Your task to perform on an android device: Open calendar and show me the second week of next month Image 0: 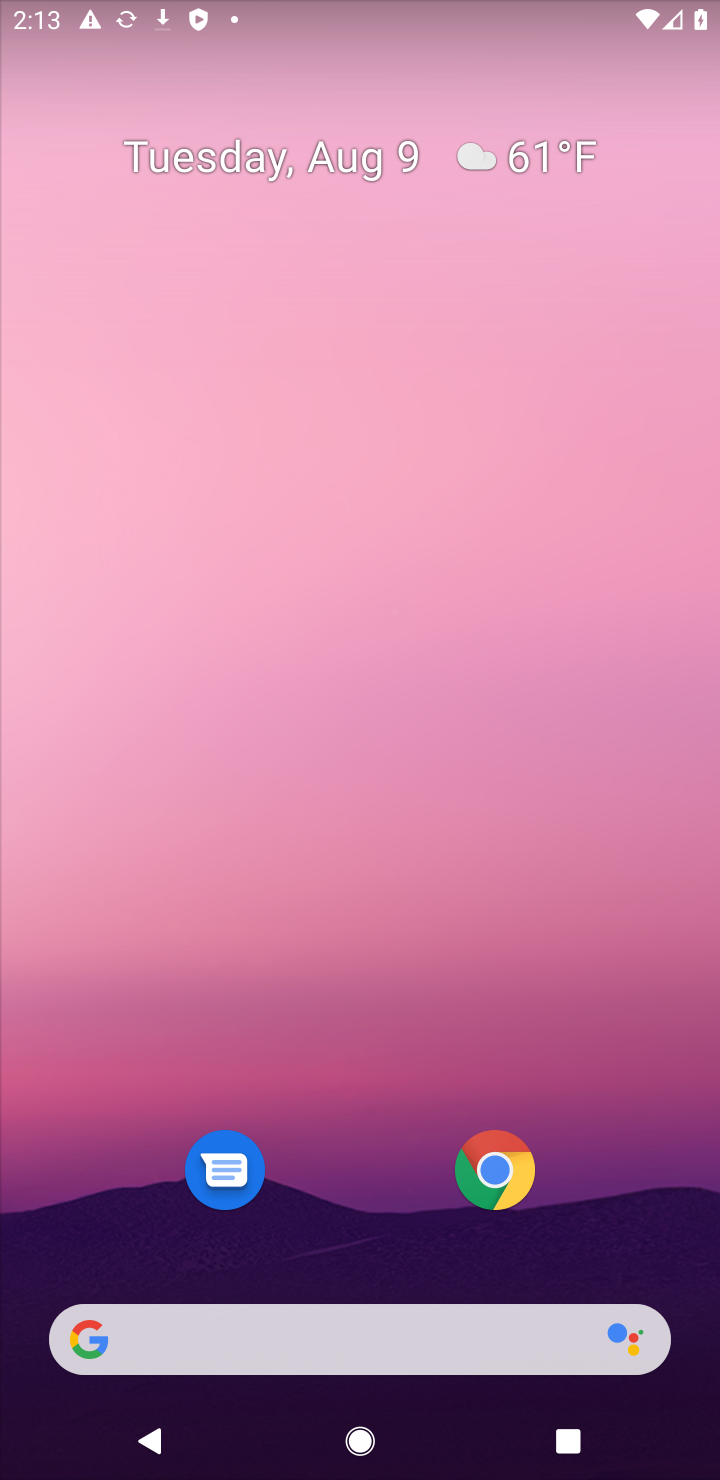
Step 0: drag from (342, 1171) to (558, 1)
Your task to perform on an android device: Open calendar and show me the second week of next month Image 1: 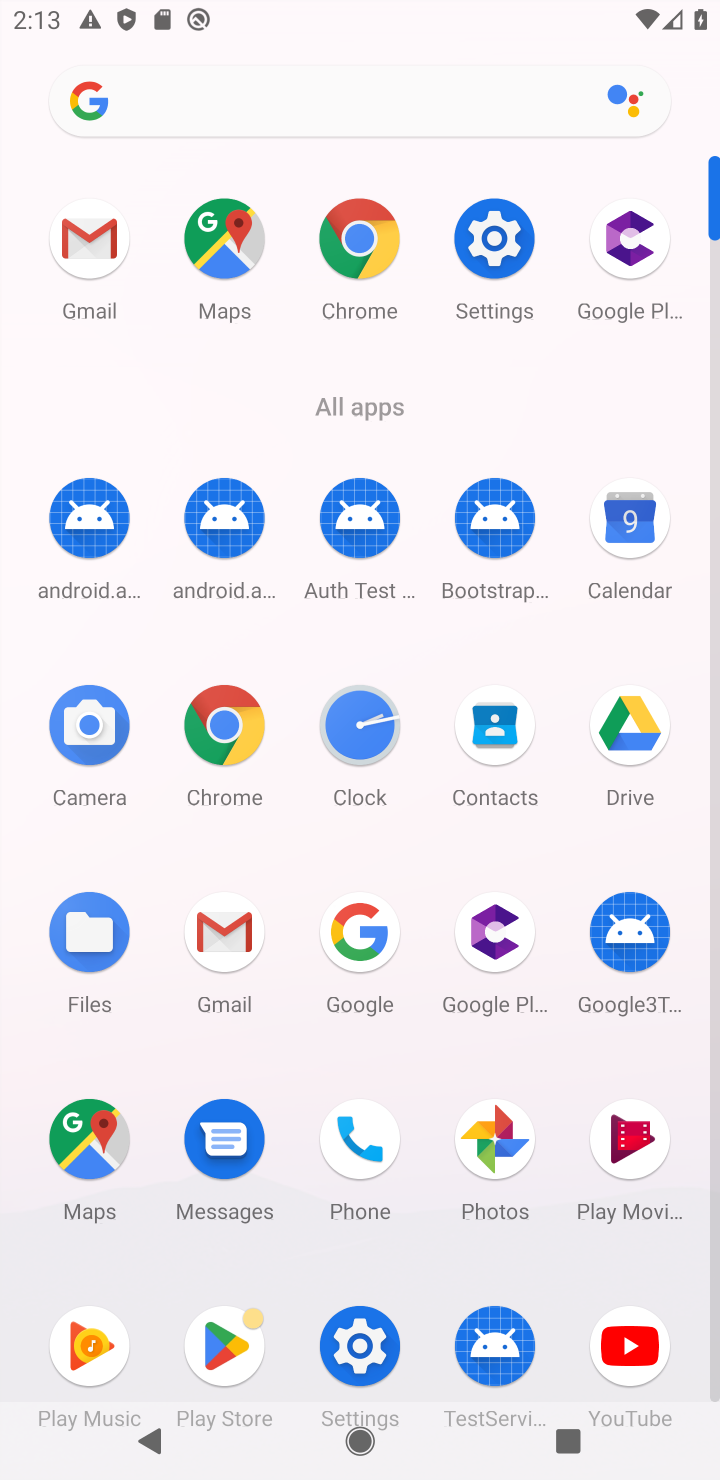
Step 1: click (625, 560)
Your task to perform on an android device: Open calendar and show me the second week of next month Image 2: 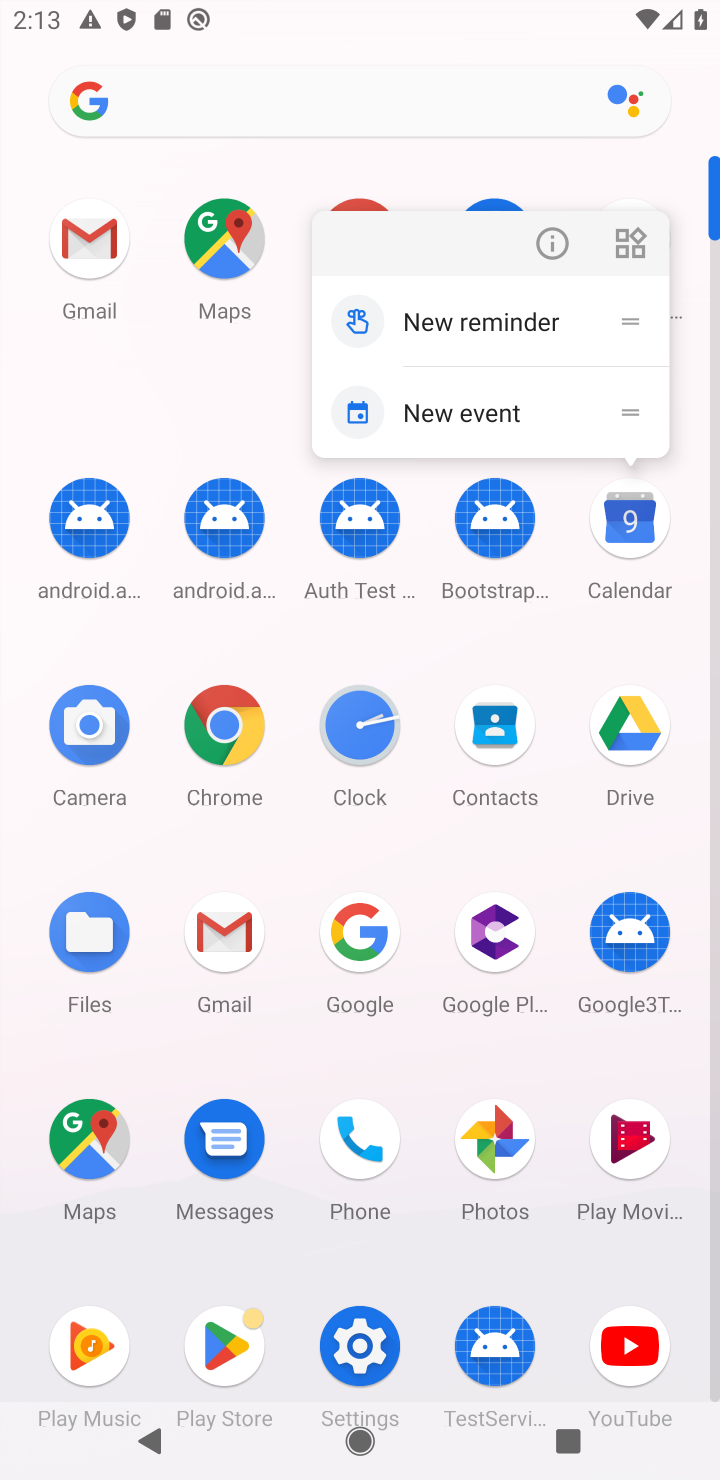
Step 2: click (623, 554)
Your task to perform on an android device: Open calendar and show me the second week of next month Image 3: 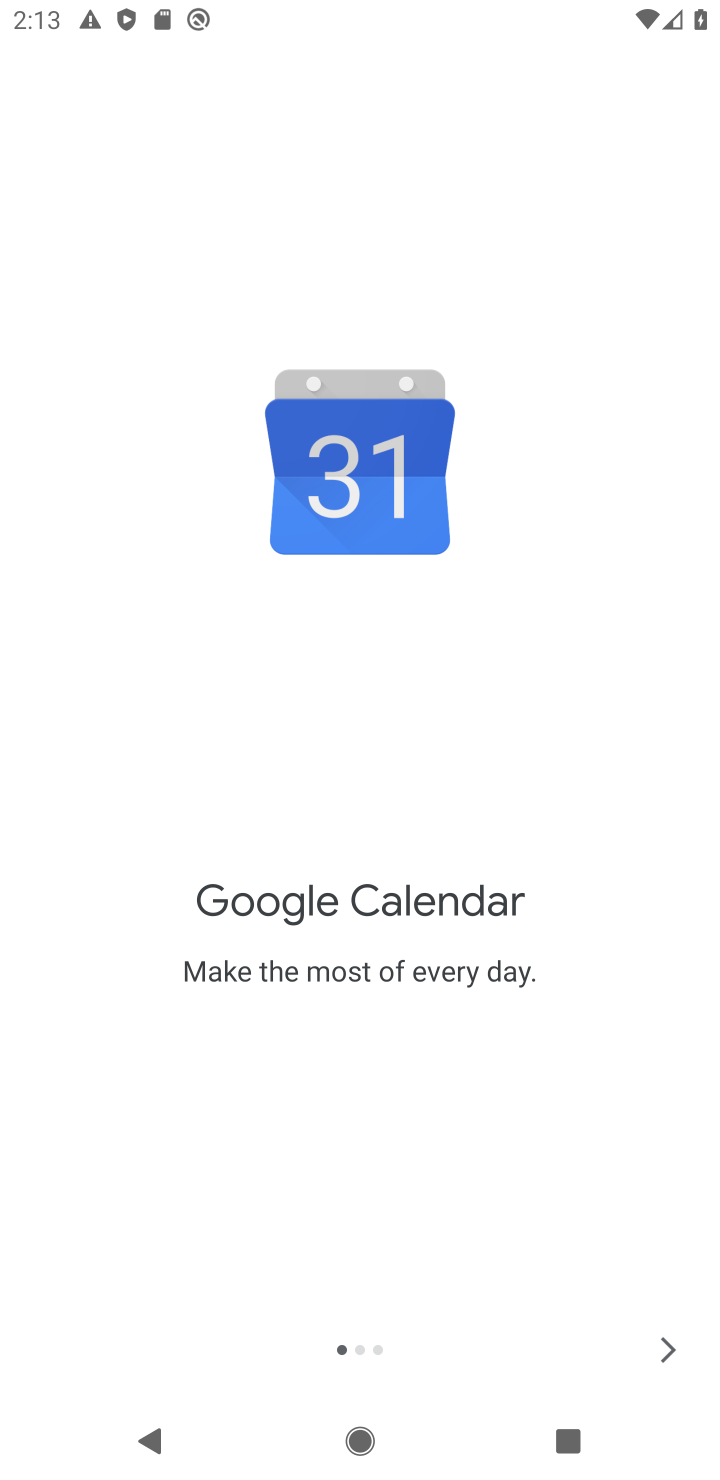
Step 3: click (650, 1345)
Your task to perform on an android device: Open calendar and show me the second week of next month Image 4: 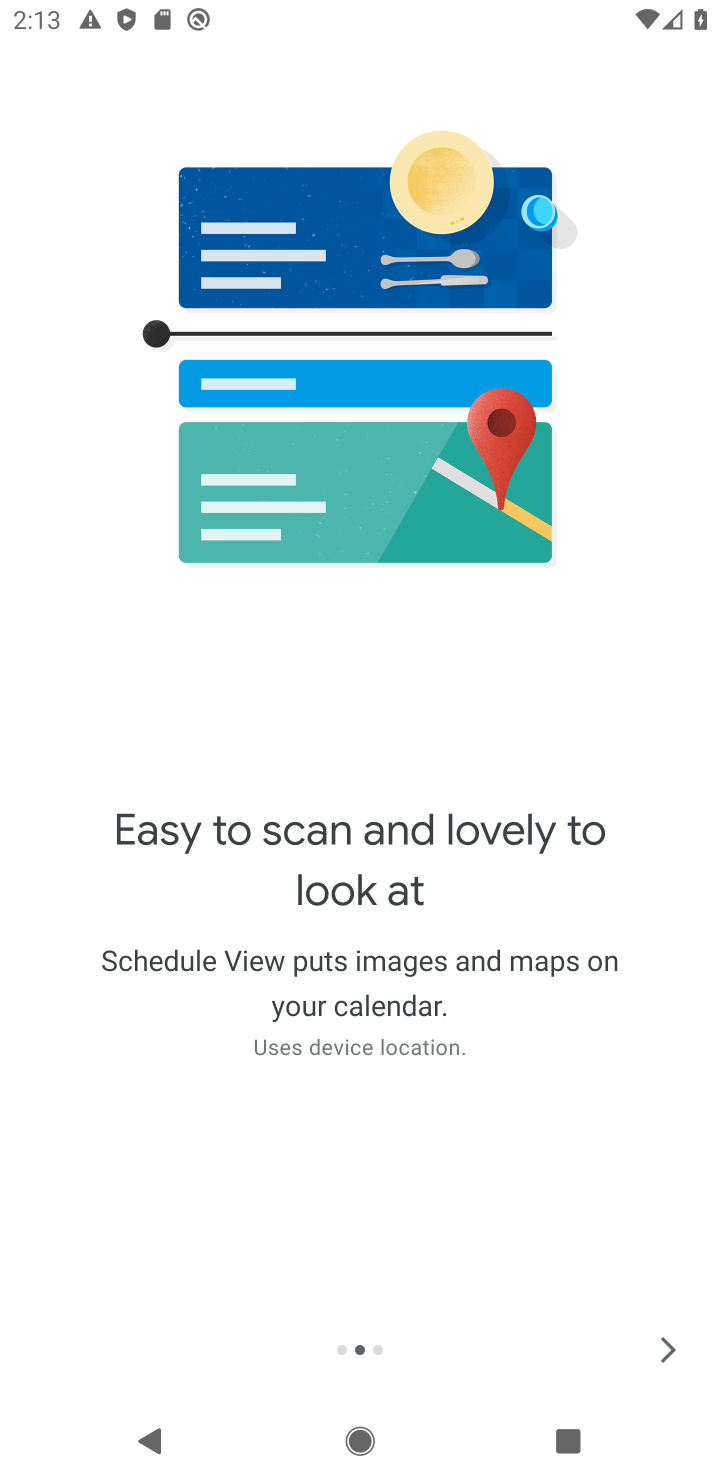
Step 4: click (656, 1348)
Your task to perform on an android device: Open calendar and show me the second week of next month Image 5: 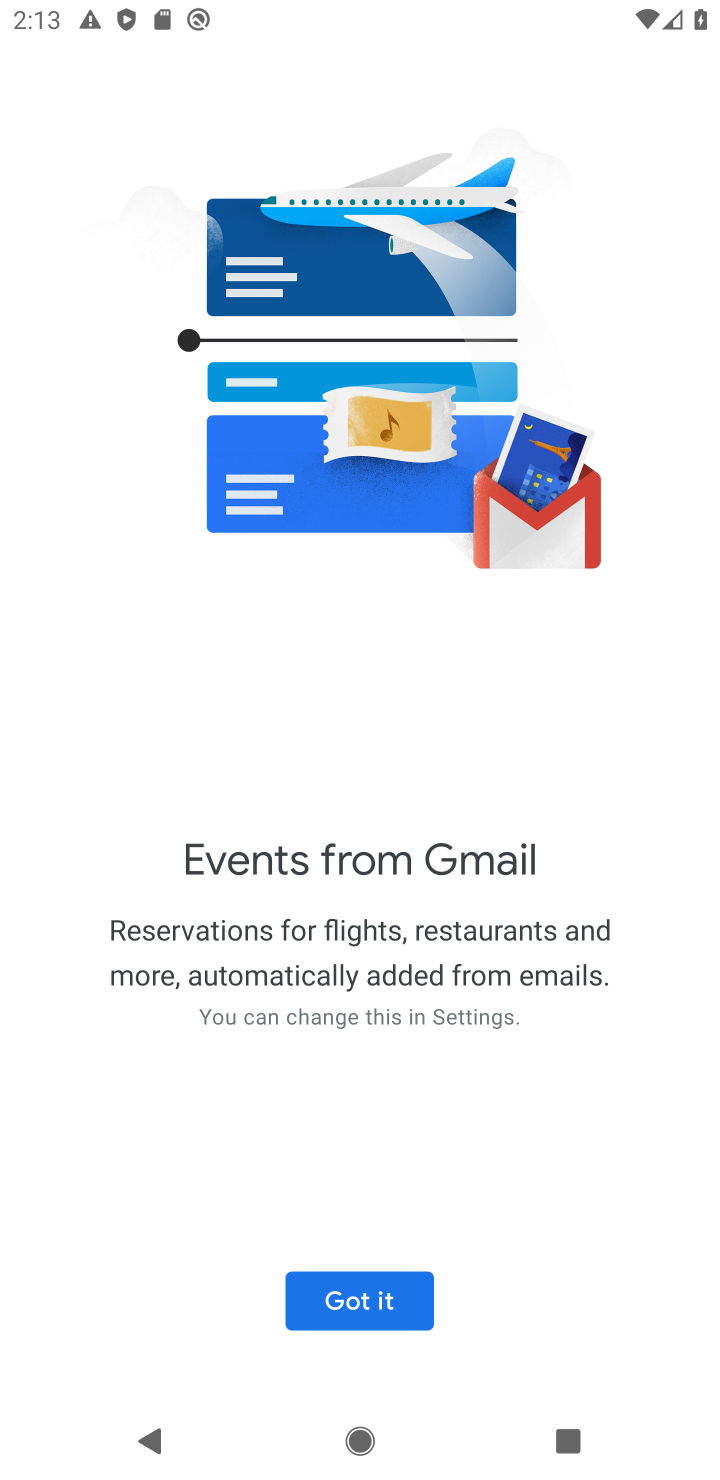
Step 5: click (365, 1309)
Your task to perform on an android device: Open calendar and show me the second week of next month Image 6: 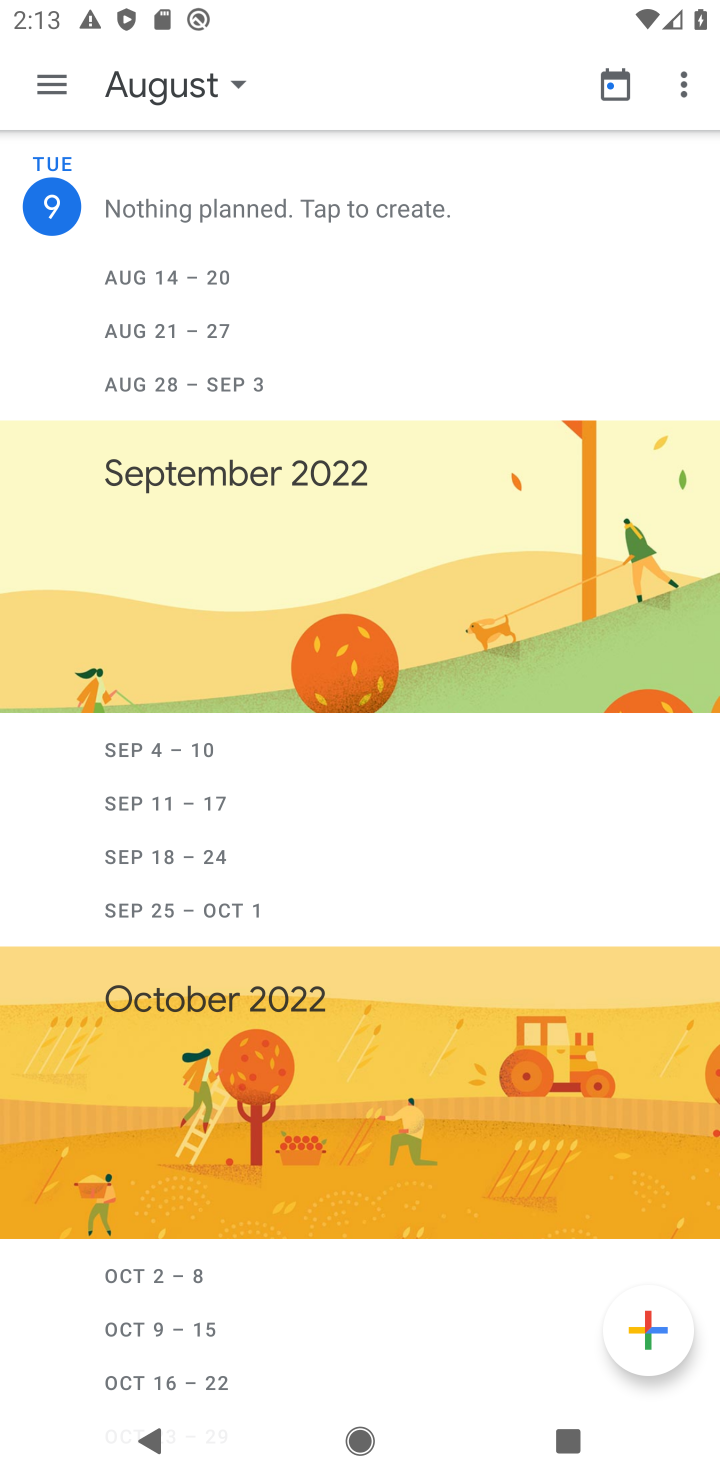
Step 6: click (62, 84)
Your task to perform on an android device: Open calendar and show me the second week of next month Image 7: 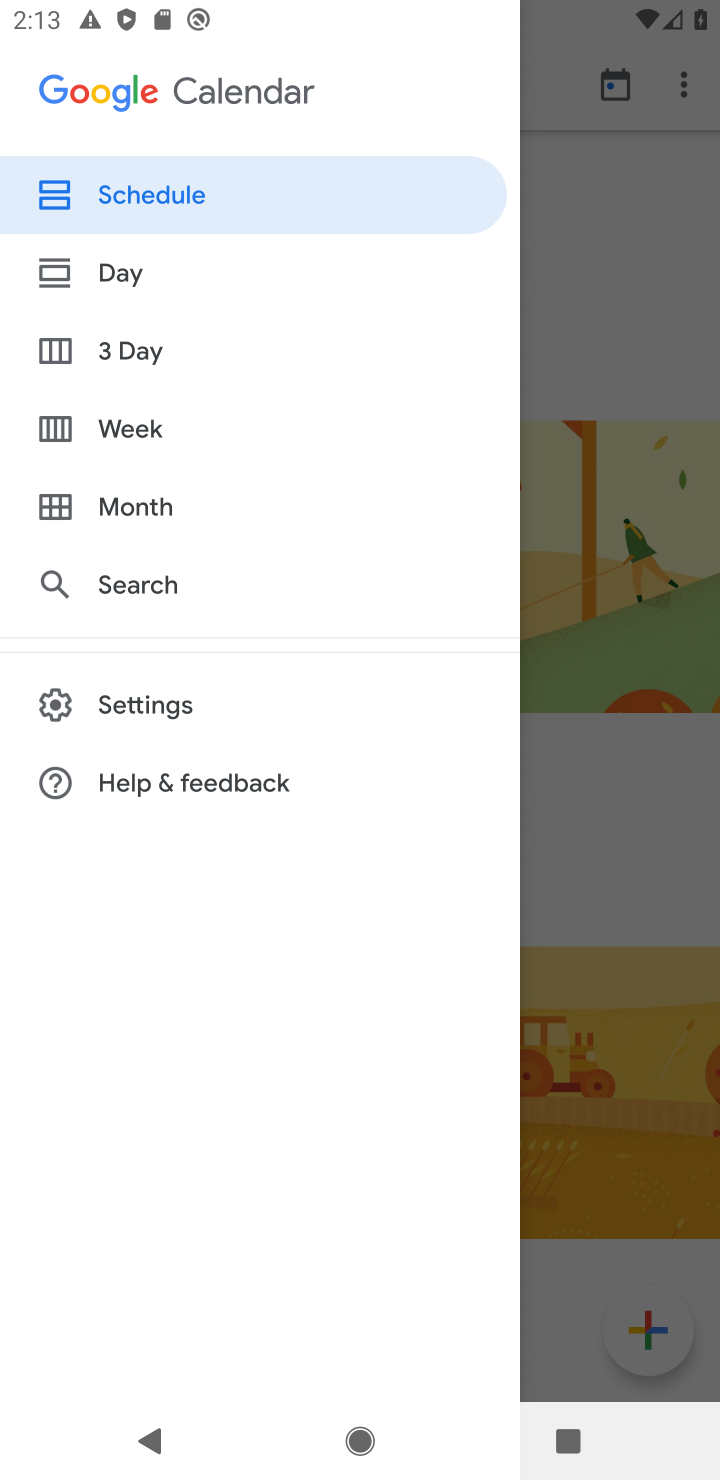
Step 7: click (127, 433)
Your task to perform on an android device: Open calendar and show me the second week of next month Image 8: 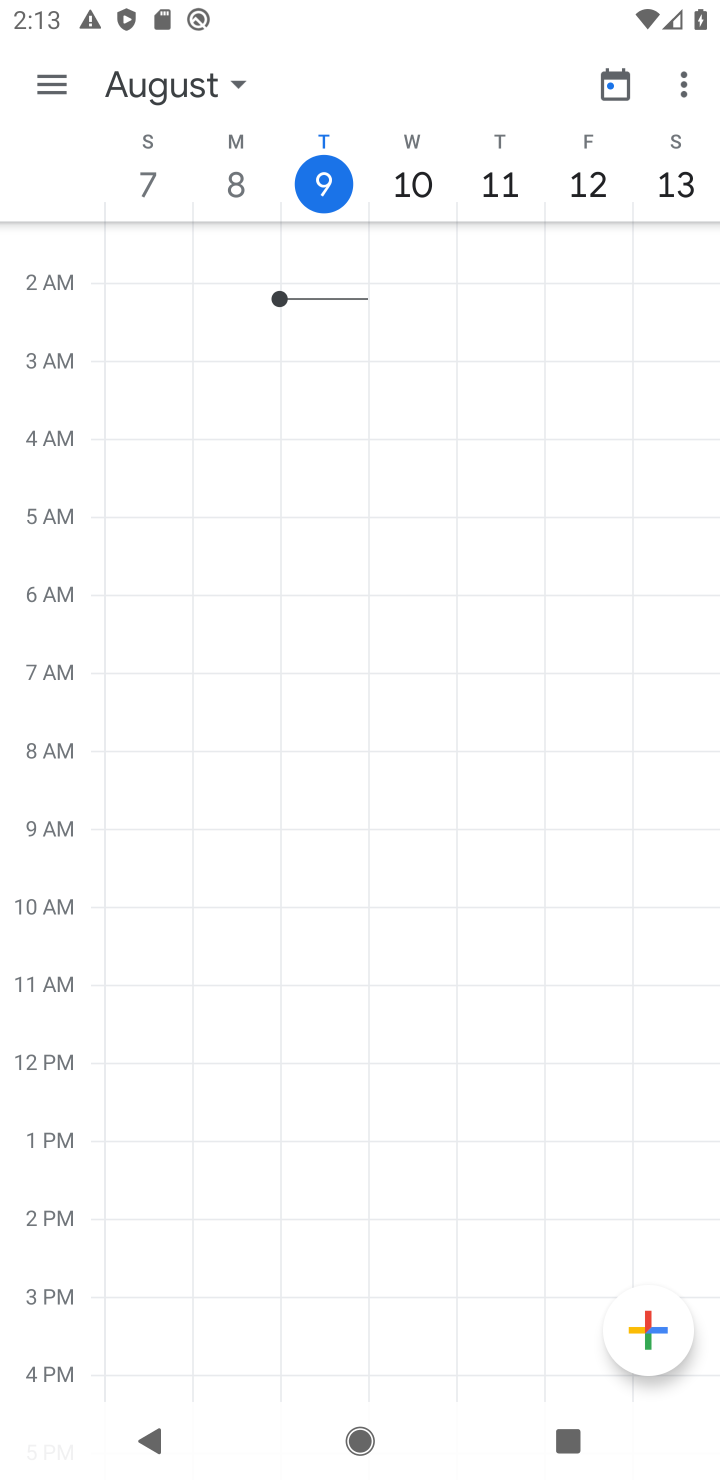
Step 8: click (186, 83)
Your task to perform on an android device: Open calendar and show me the second week of next month Image 9: 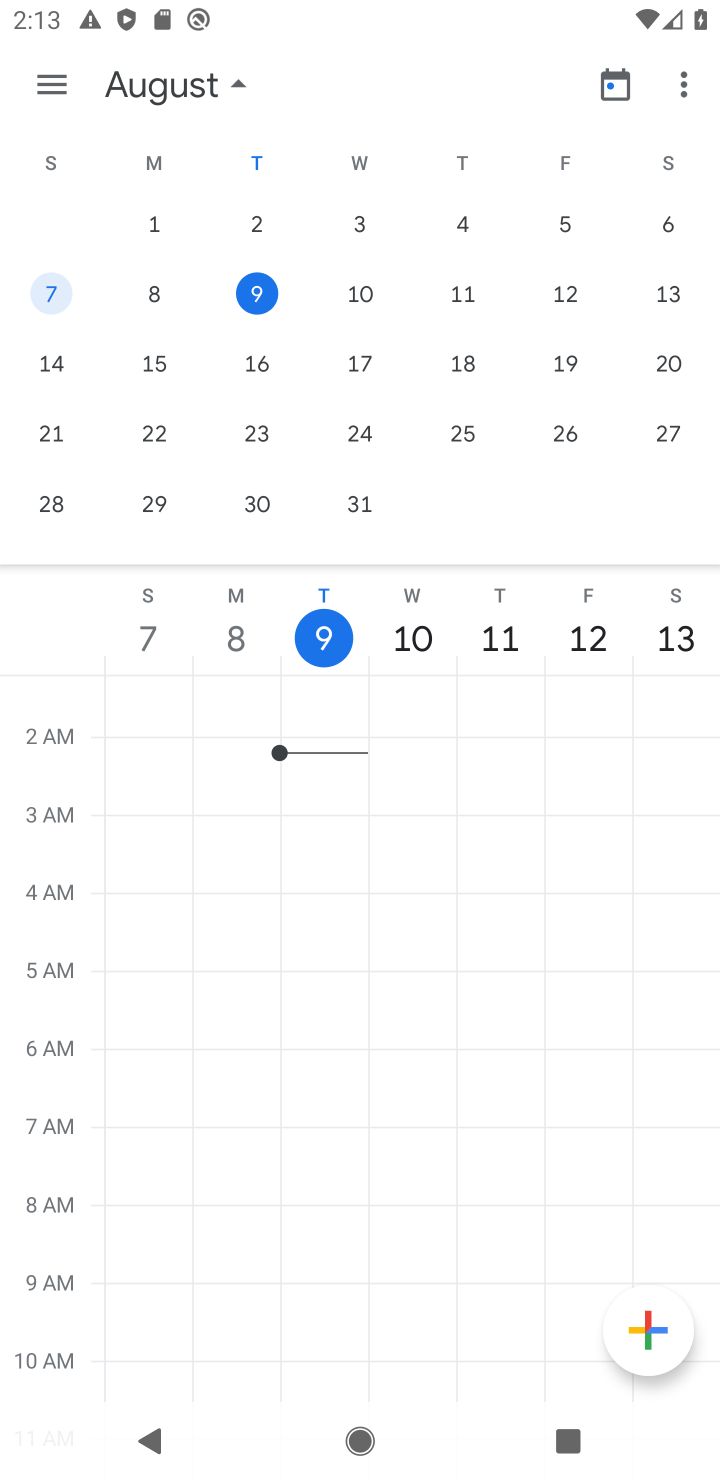
Step 9: drag from (592, 386) to (266, 472)
Your task to perform on an android device: Open calendar and show me the second week of next month Image 10: 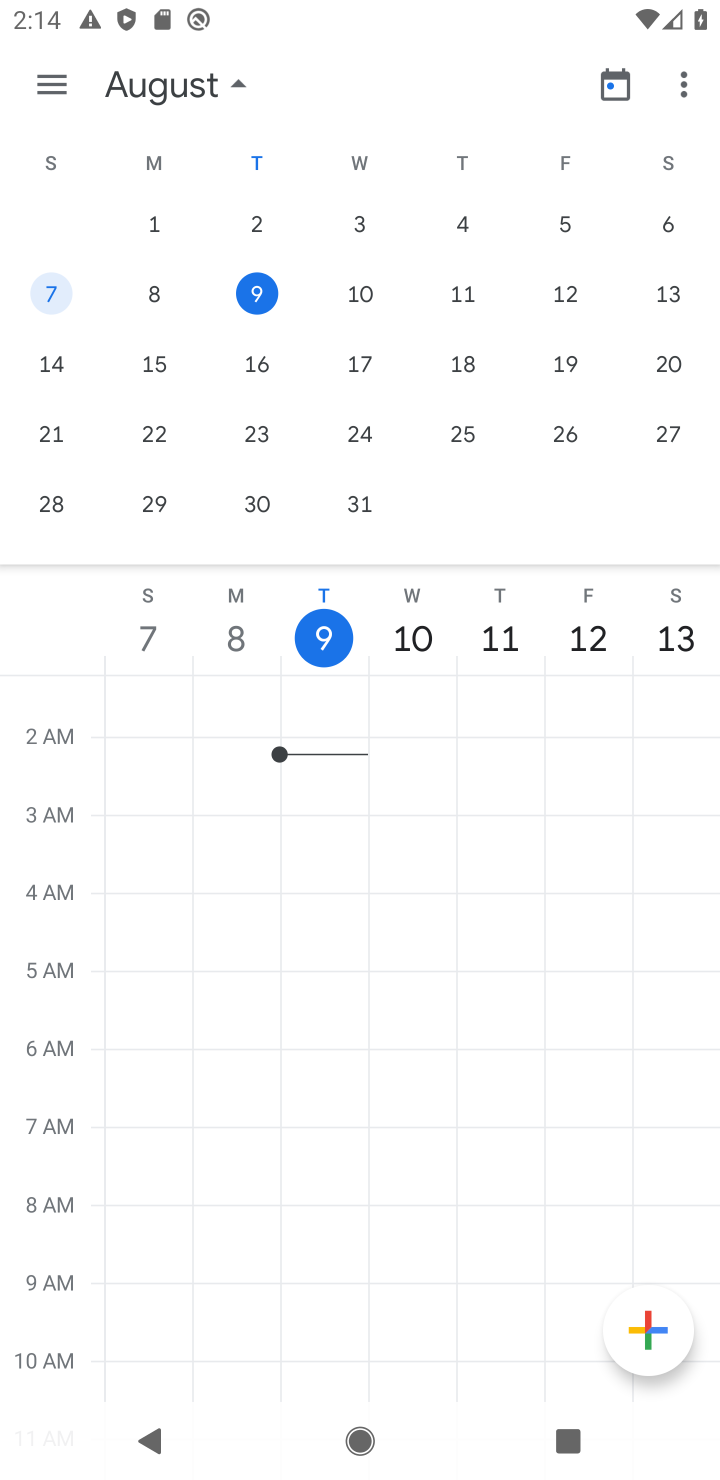
Step 10: drag from (571, 315) to (185, 322)
Your task to perform on an android device: Open calendar and show me the second week of next month Image 11: 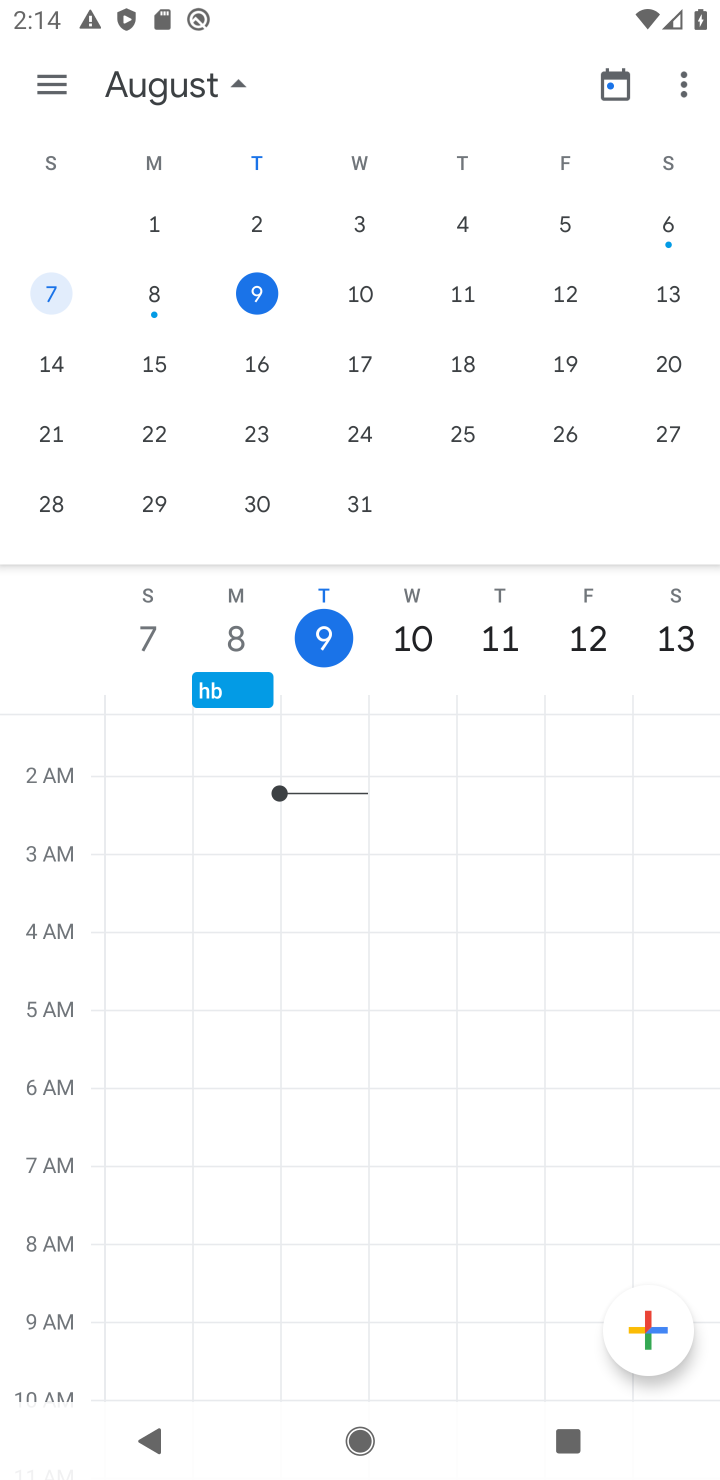
Step 11: drag from (624, 389) to (31, 245)
Your task to perform on an android device: Open calendar and show me the second week of next month Image 12: 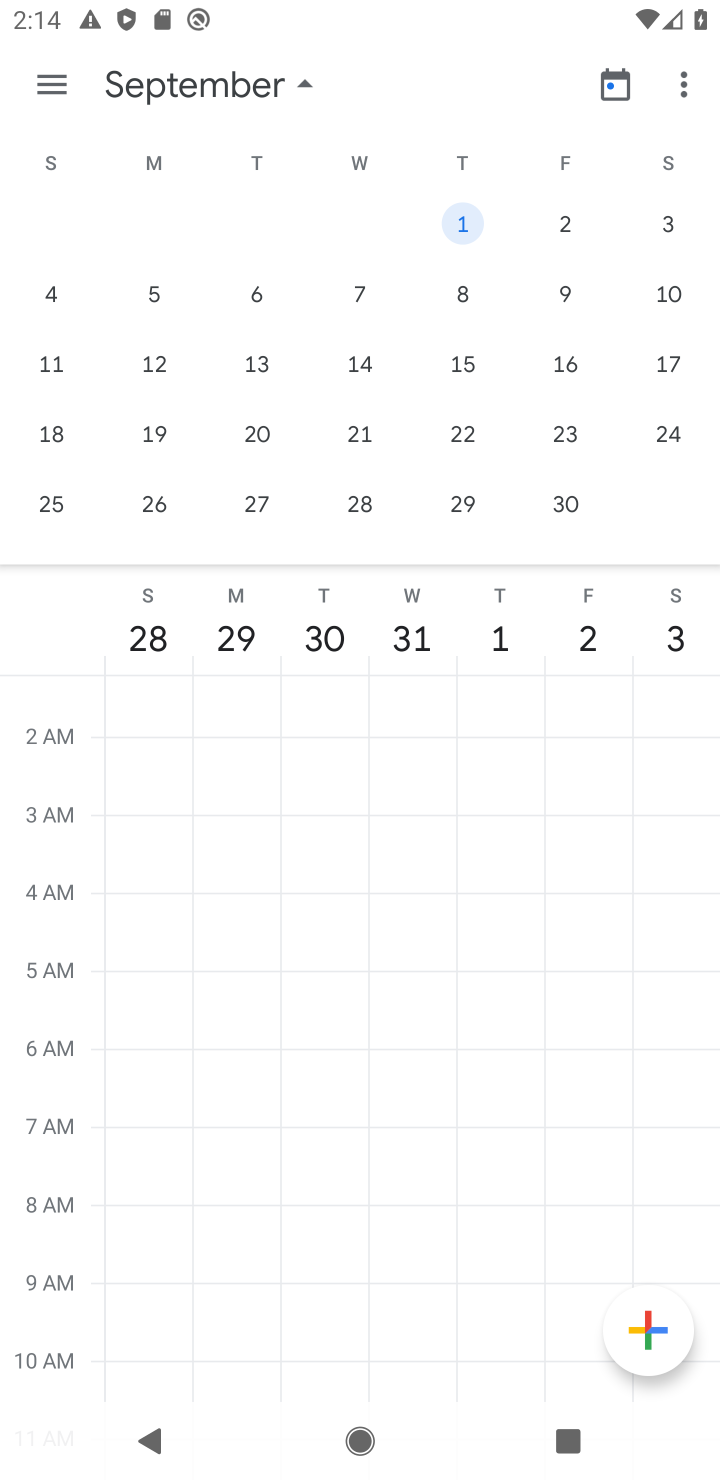
Step 12: click (450, 299)
Your task to perform on an android device: Open calendar and show me the second week of next month Image 13: 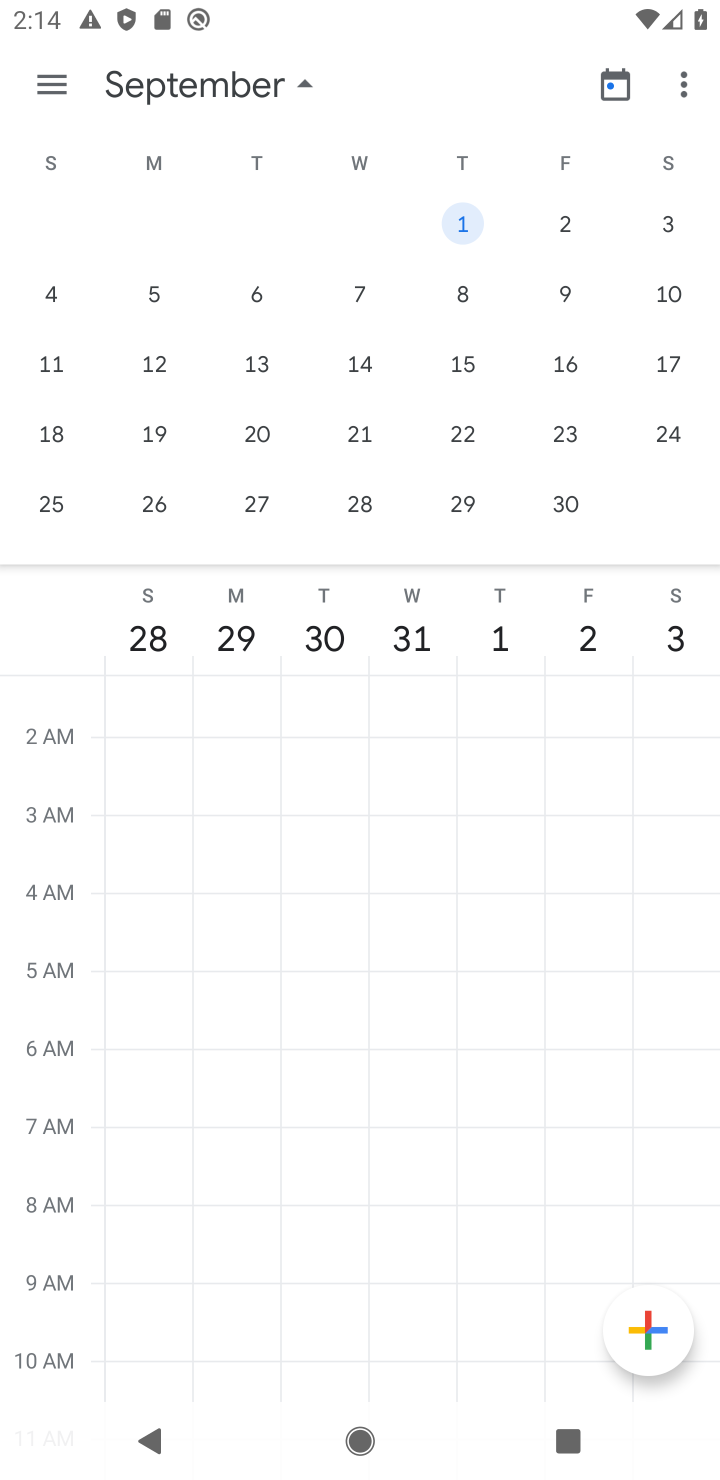
Step 13: click (450, 299)
Your task to perform on an android device: Open calendar and show me the second week of next month Image 14: 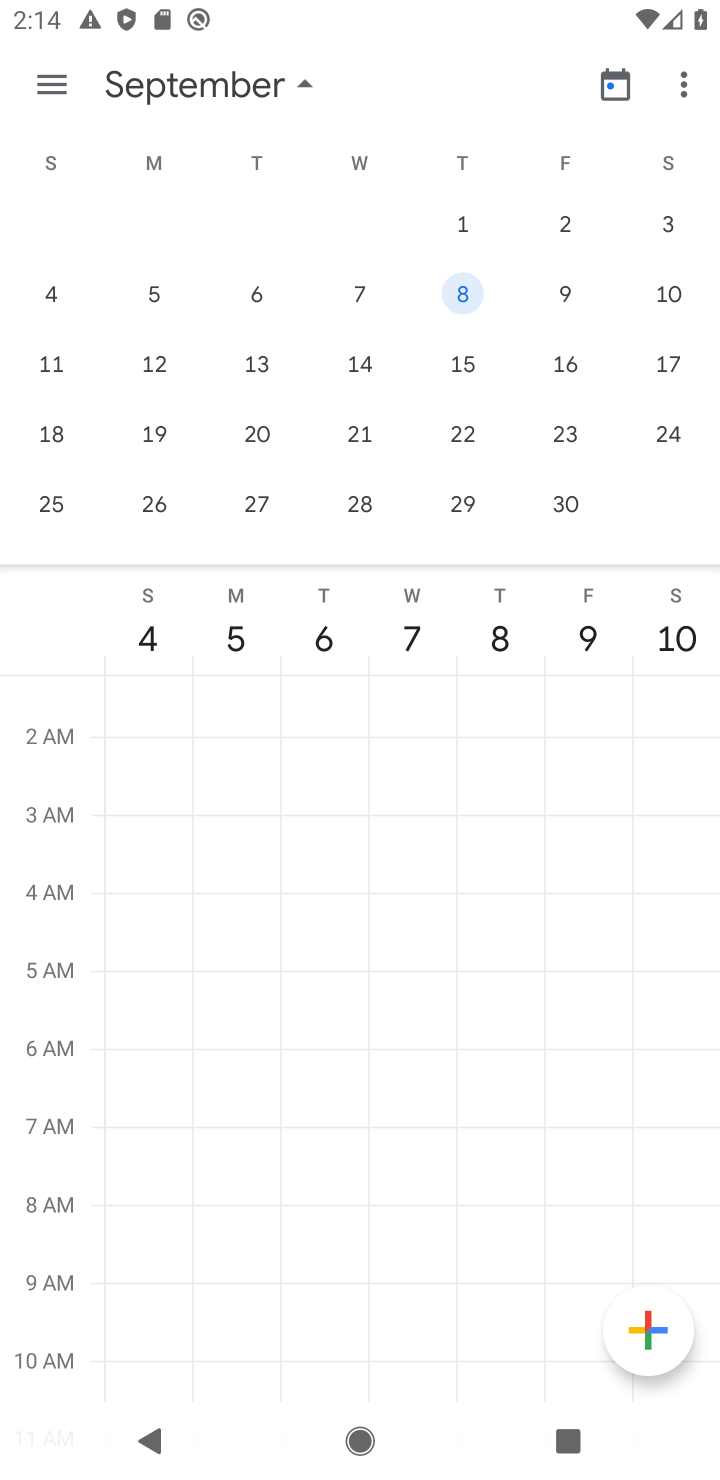
Step 14: click (54, 91)
Your task to perform on an android device: Open calendar and show me the second week of next month Image 15: 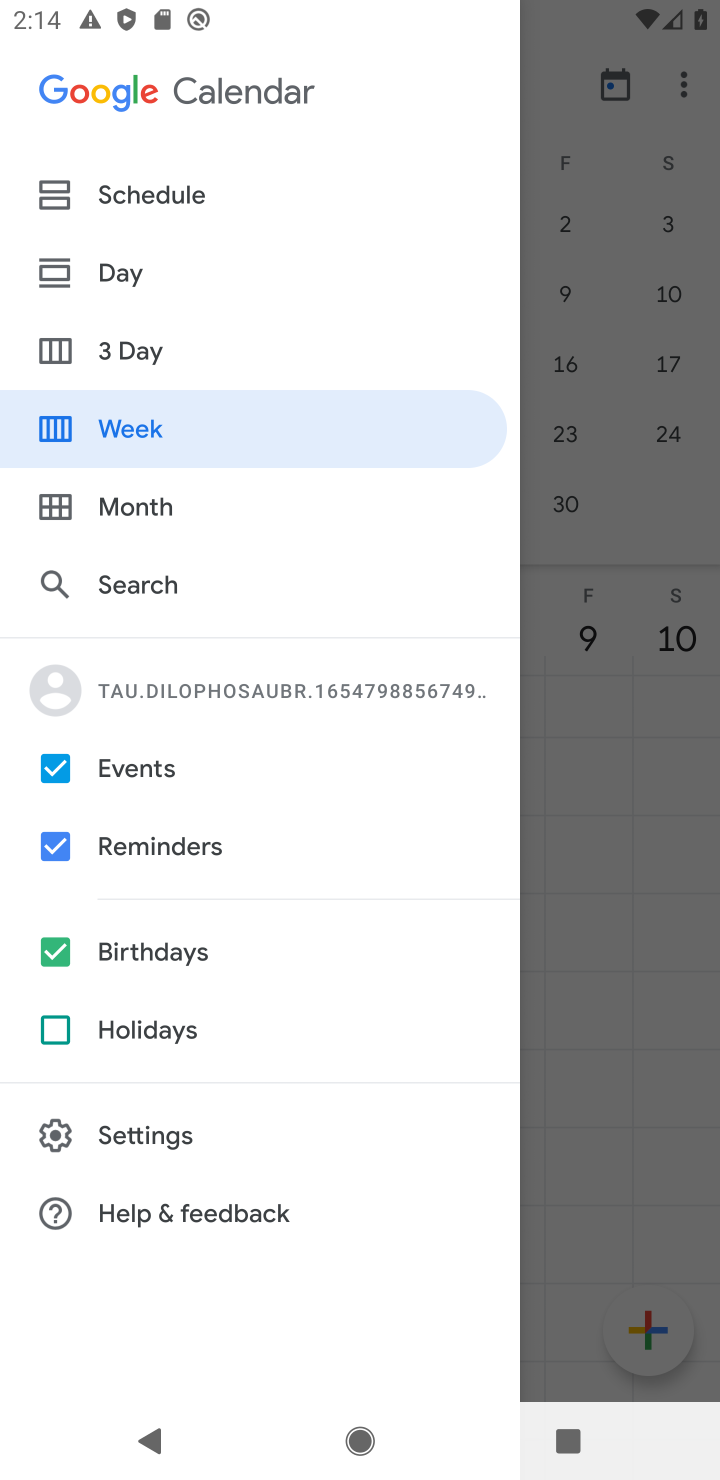
Step 15: click (179, 424)
Your task to perform on an android device: Open calendar and show me the second week of next month Image 16: 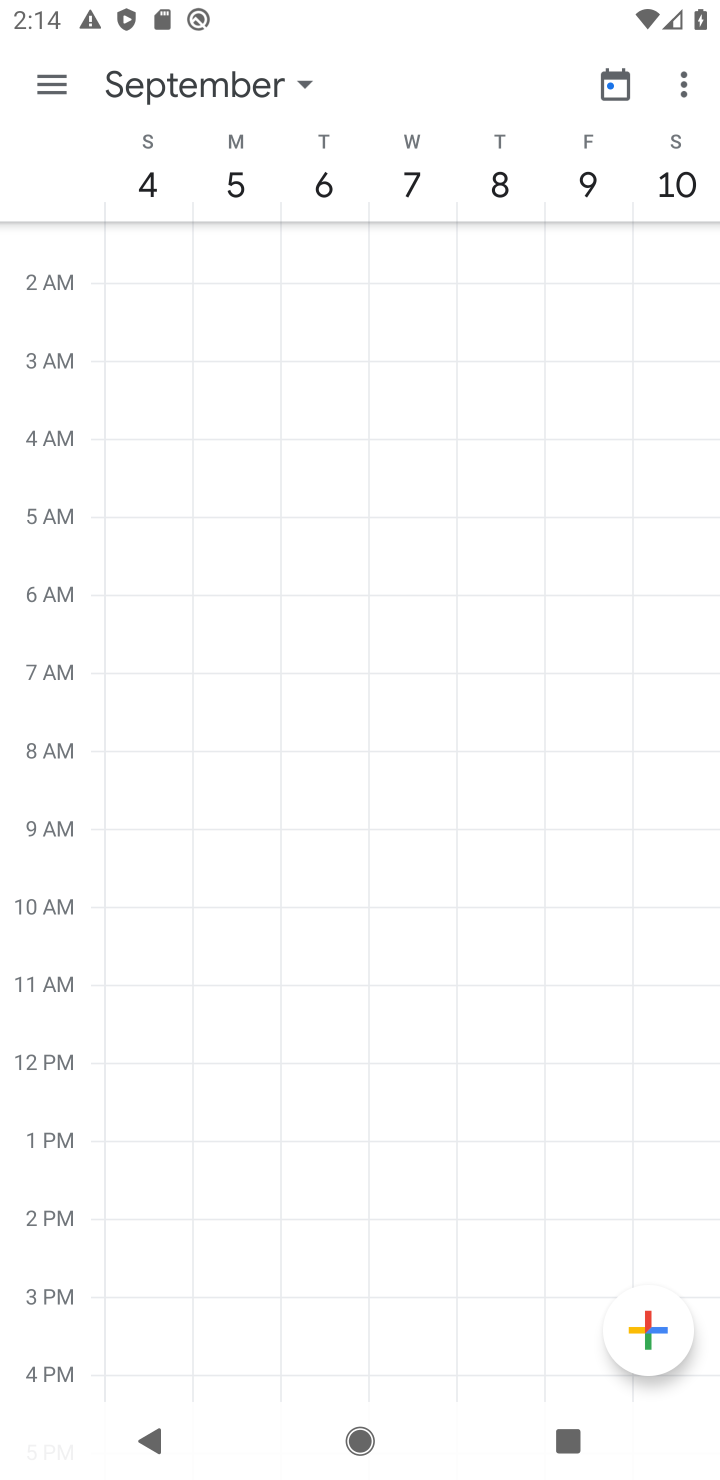
Step 16: task complete